Your task to perform on an android device: turn on priority inbox in the gmail app Image 0: 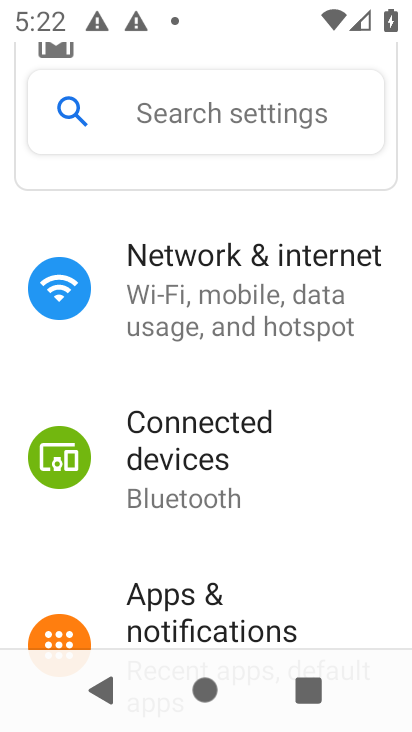
Step 0: press home button
Your task to perform on an android device: turn on priority inbox in the gmail app Image 1: 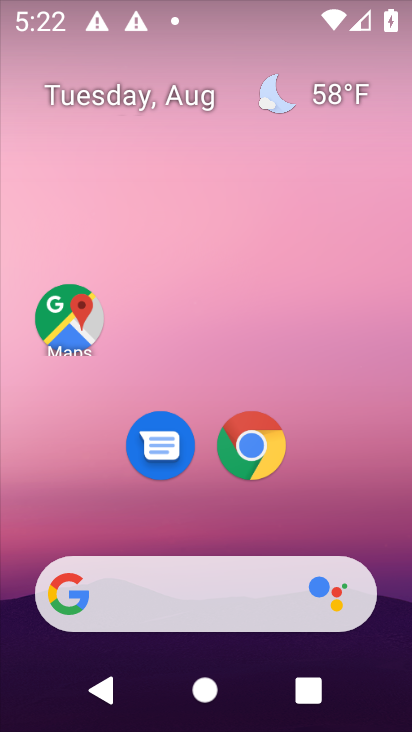
Step 1: drag from (207, 432) to (193, 115)
Your task to perform on an android device: turn on priority inbox in the gmail app Image 2: 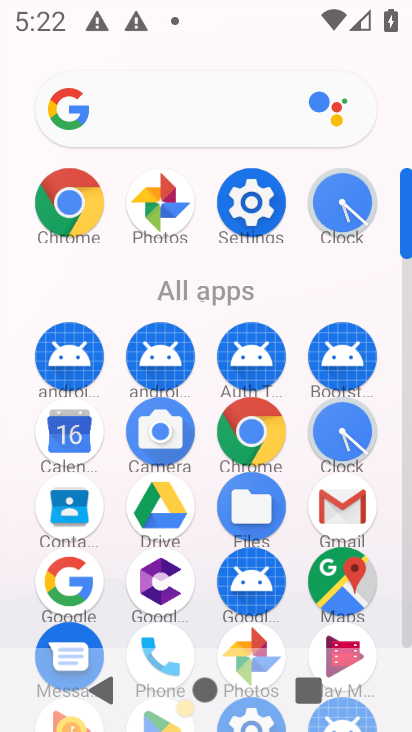
Step 2: click (344, 518)
Your task to perform on an android device: turn on priority inbox in the gmail app Image 3: 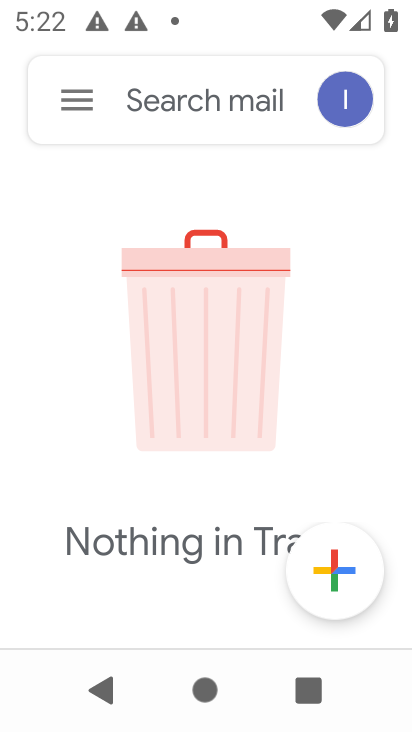
Step 3: click (72, 103)
Your task to perform on an android device: turn on priority inbox in the gmail app Image 4: 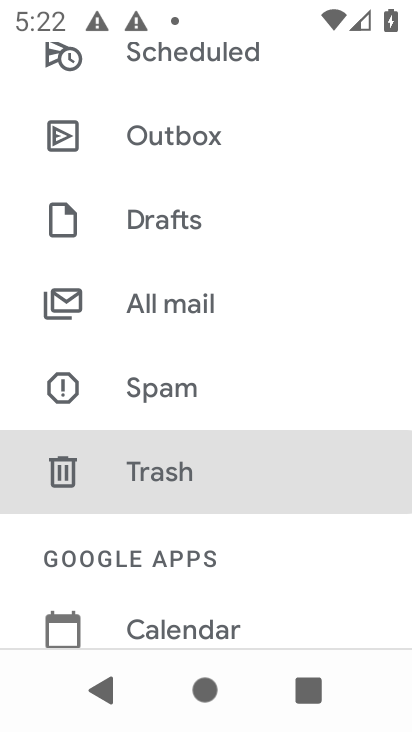
Step 4: drag from (224, 580) to (228, 112)
Your task to perform on an android device: turn on priority inbox in the gmail app Image 5: 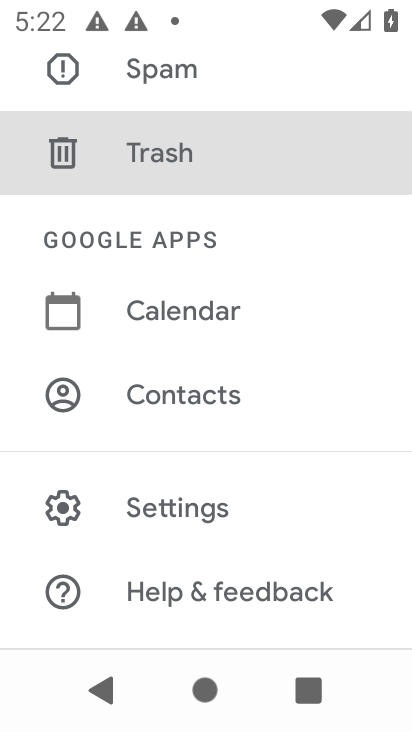
Step 5: click (152, 507)
Your task to perform on an android device: turn on priority inbox in the gmail app Image 6: 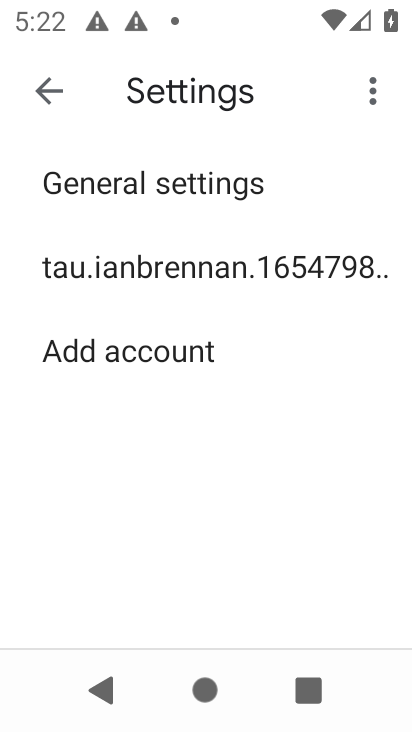
Step 6: click (155, 275)
Your task to perform on an android device: turn on priority inbox in the gmail app Image 7: 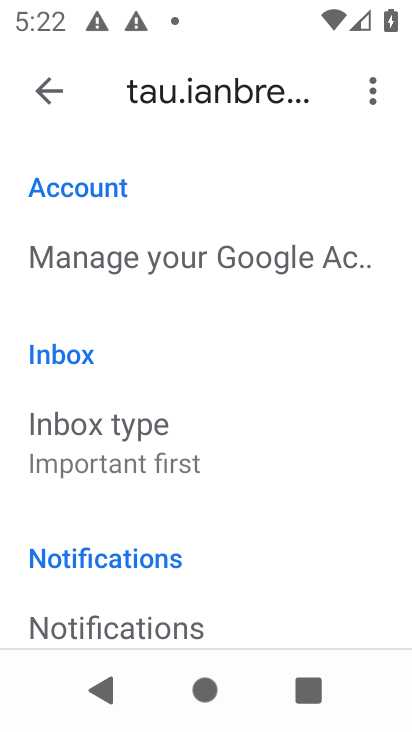
Step 7: drag from (235, 422) to (238, 332)
Your task to perform on an android device: turn on priority inbox in the gmail app Image 8: 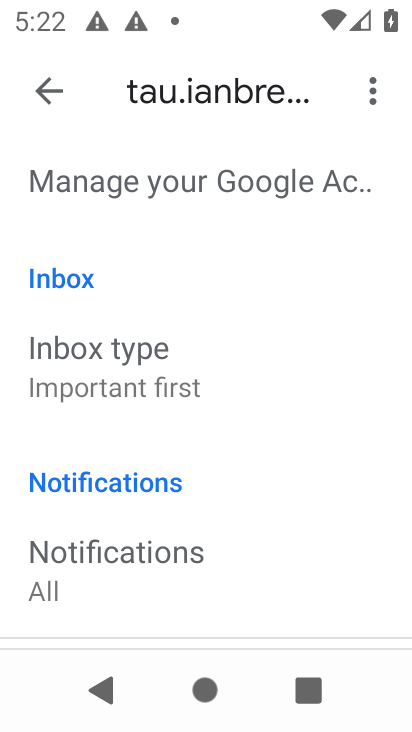
Step 8: click (111, 363)
Your task to perform on an android device: turn on priority inbox in the gmail app Image 9: 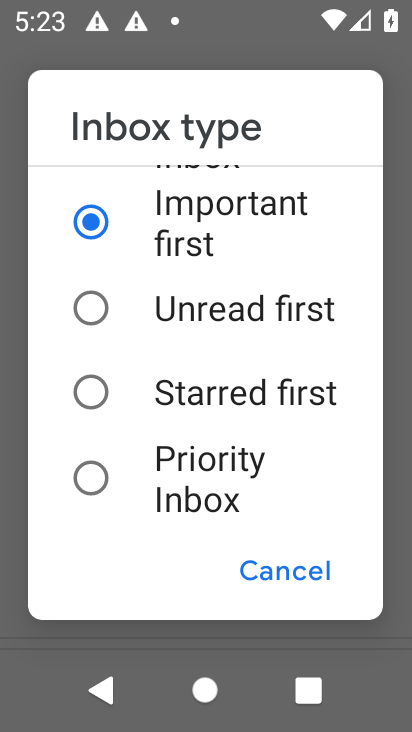
Step 9: click (84, 474)
Your task to perform on an android device: turn on priority inbox in the gmail app Image 10: 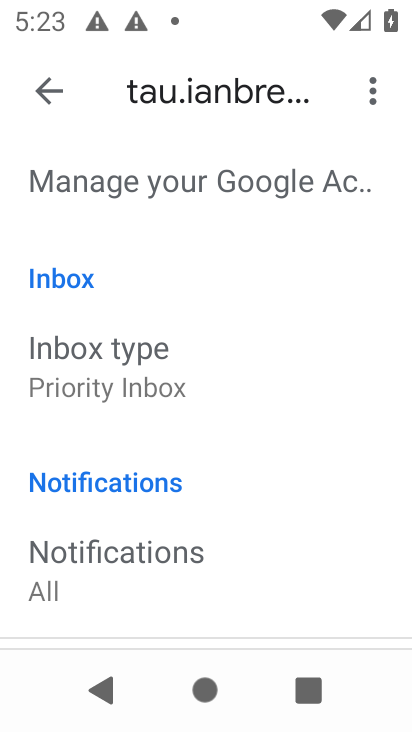
Step 10: task complete